Your task to perform on an android device: Open my contact list Image 0: 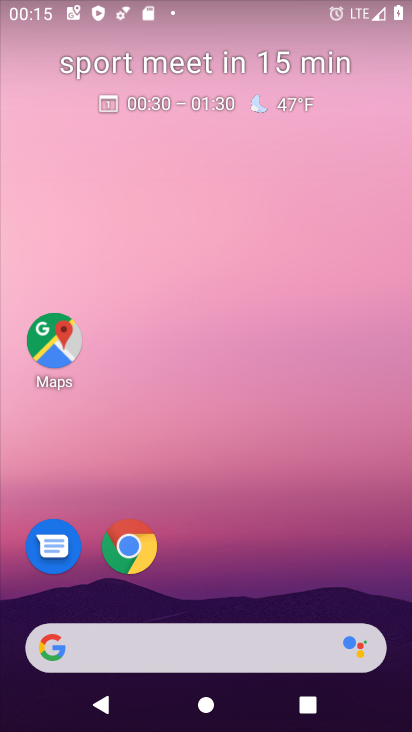
Step 0: drag from (295, 591) to (304, 15)
Your task to perform on an android device: Open my contact list Image 1: 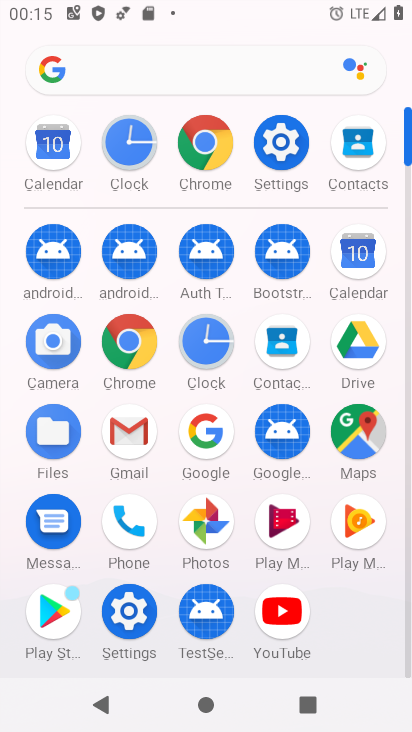
Step 1: click (276, 352)
Your task to perform on an android device: Open my contact list Image 2: 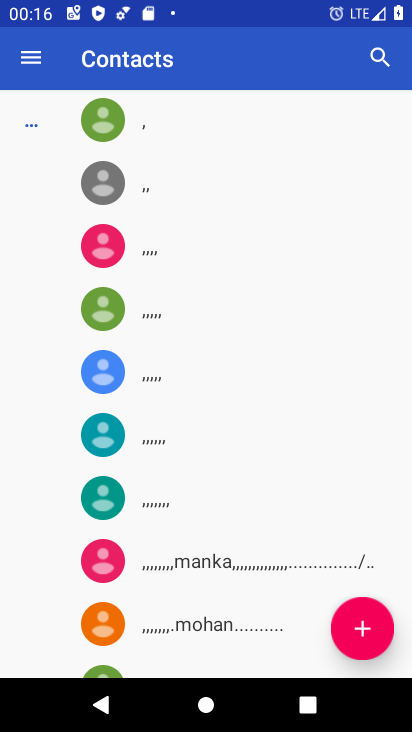
Step 2: task complete